Your task to perform on an android device: Turn off the flashlight Image 0: 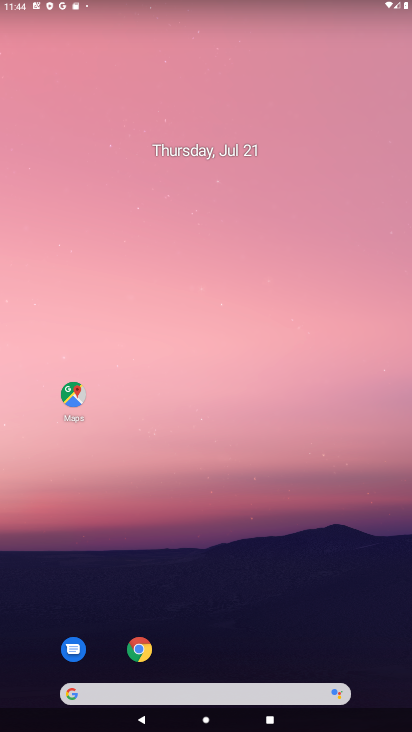
Step 0: drag from (225, 728) to (232, 335)
Your task to perform on an android device: Turn off the flashlight Image 1: 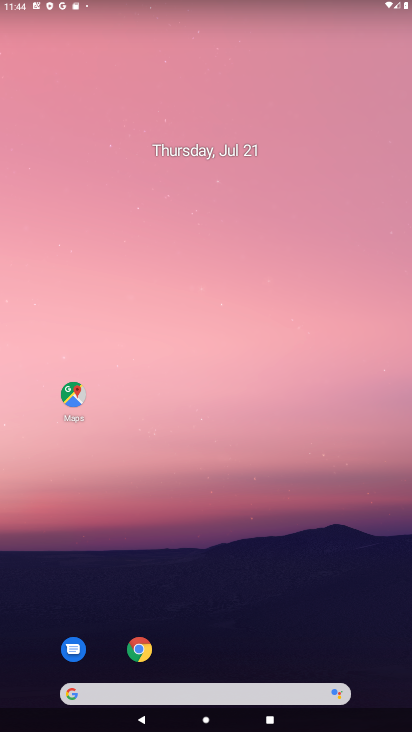
Step 1: drag from (218, 709) to (219, 192)
Your task to perform on an android device: Turn off the flashlight Image 2: 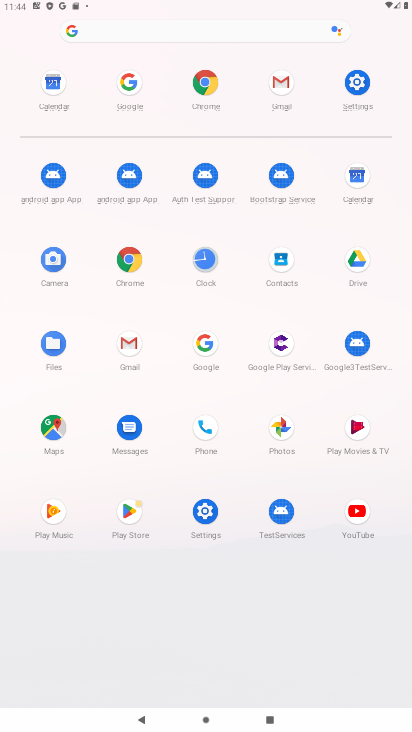
Step 2: click (354, 81)
Your task to perform on an android device: Turn off the flashlight Image 3: 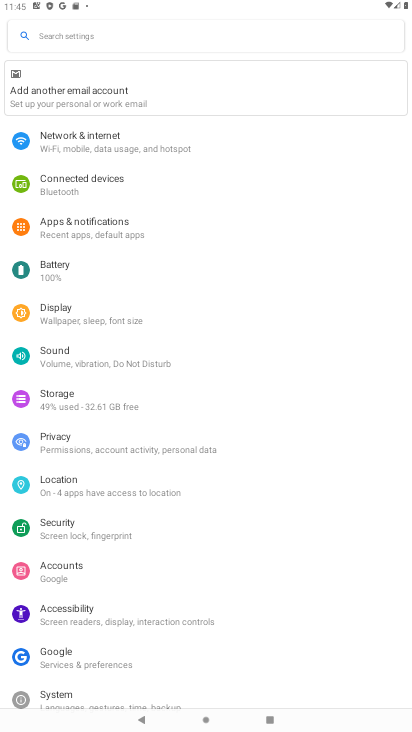
Step 3: task complete